Your task to perform on an android device: Show me popular games on the Play Store Image 0: 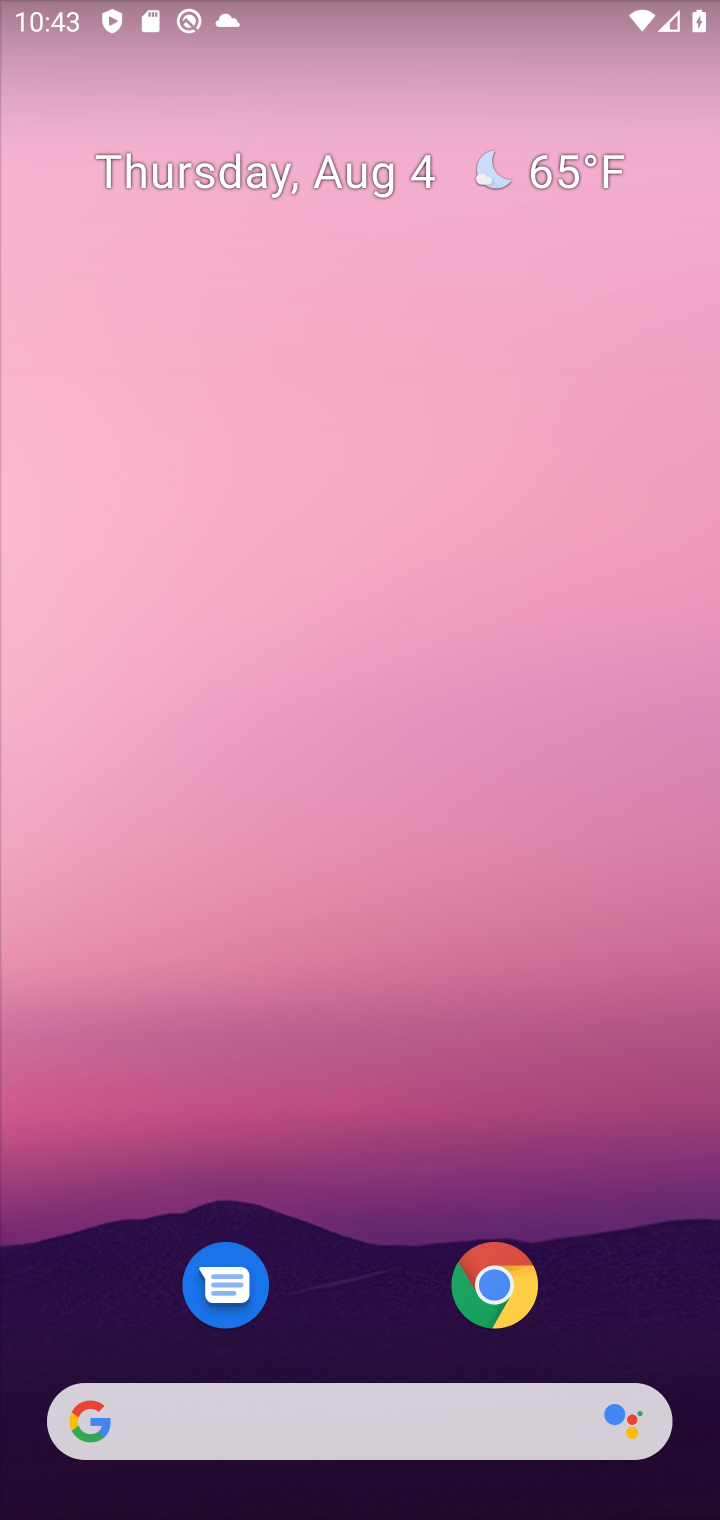
Step 0: drag from (419, 1309) to (609, 35)
Your task to perform on an android device: Show me popular games on the Play Store Image 1: 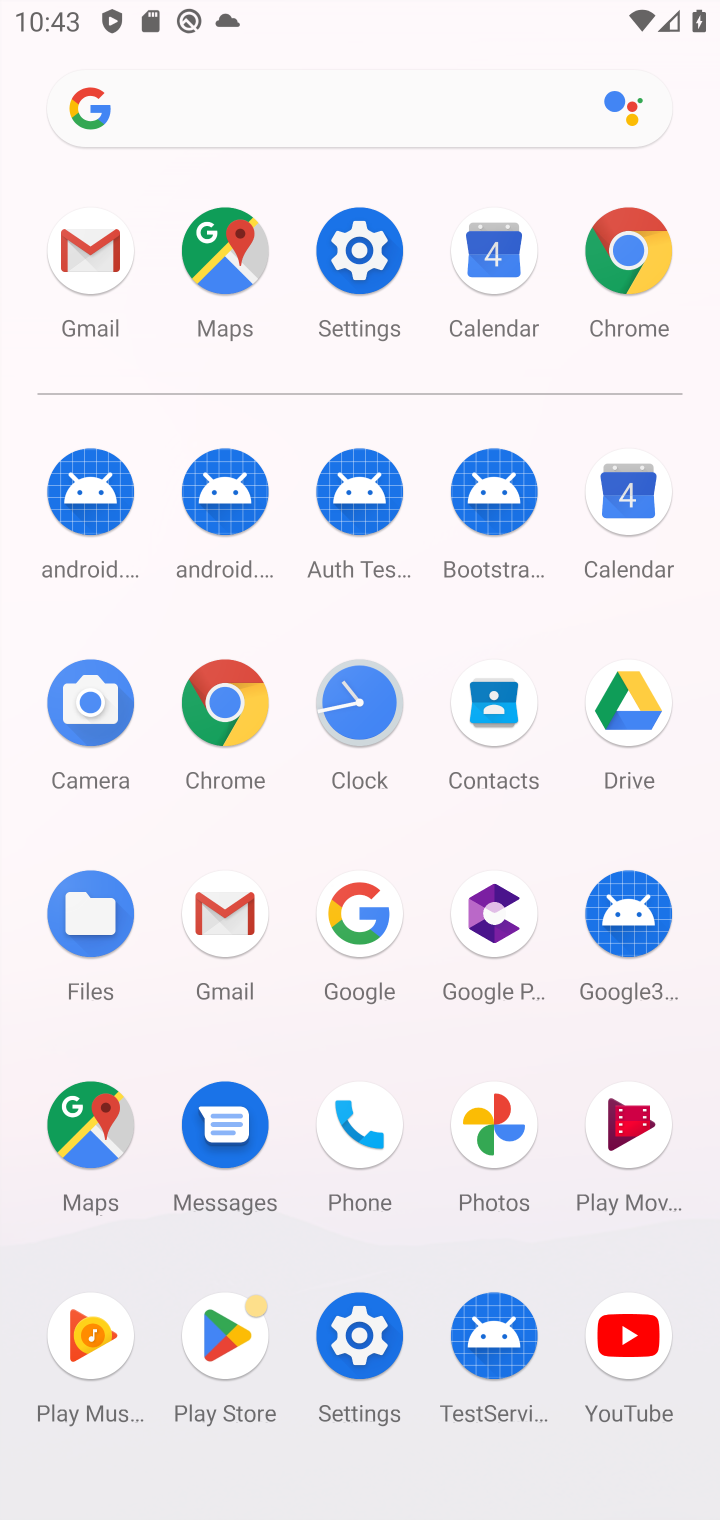
Step 1: click (233, 1315)
Your task to perform on an android device: Show me popular games on the Play Store Image 2: 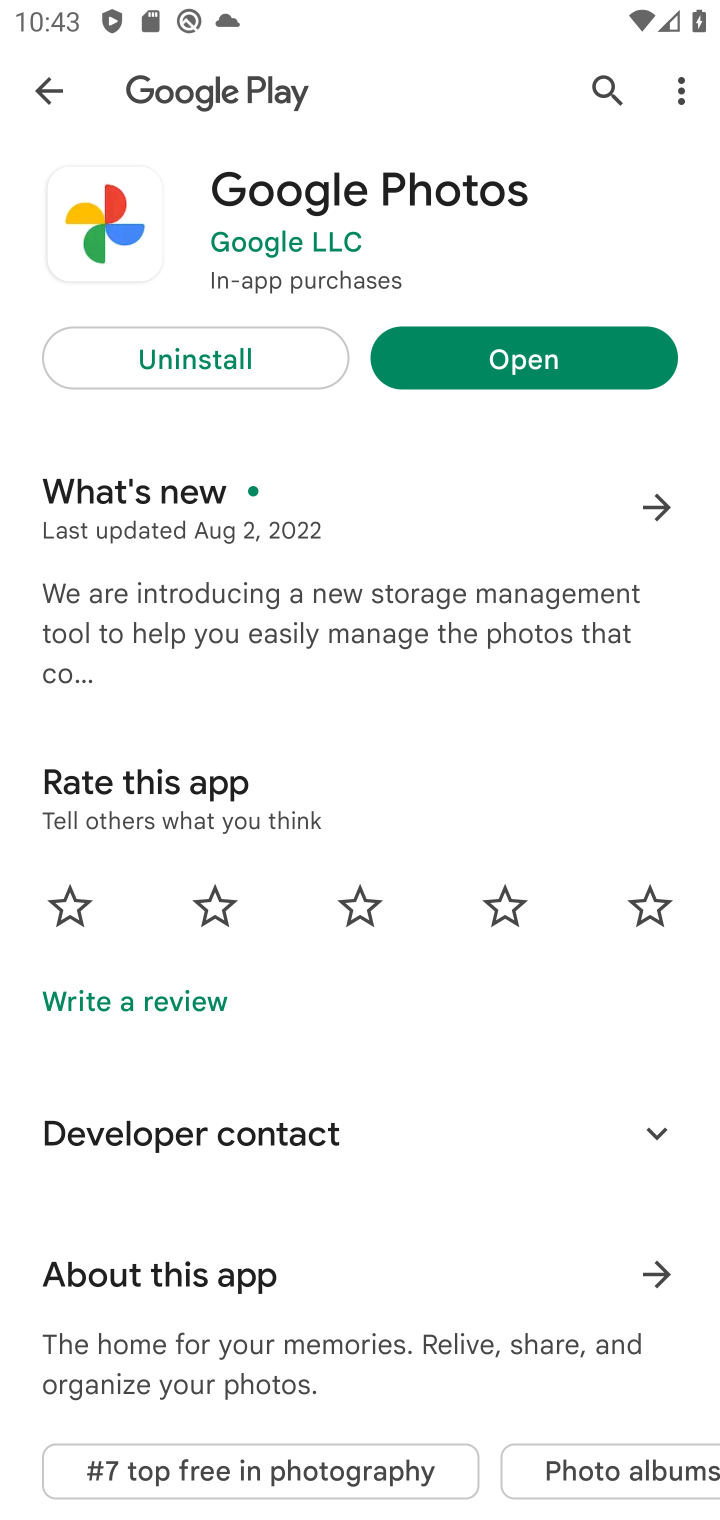
Step 2: click (51, 86)
Your task to perform on an android device: Show me popular games on the Play Store Image 3: 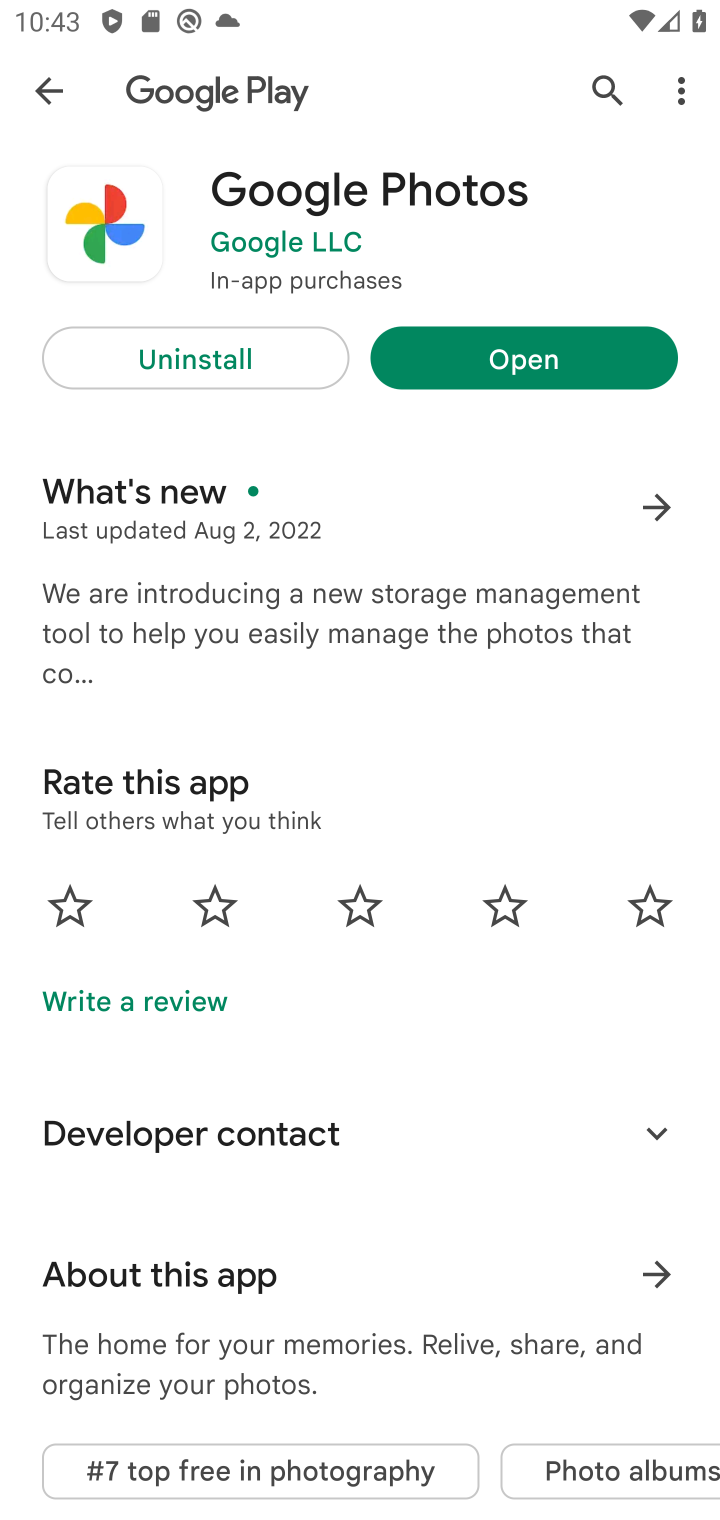
Step 3: click (51, 86)
Your task to perform on an android device: Show me popular games on the Play Store Image 4: 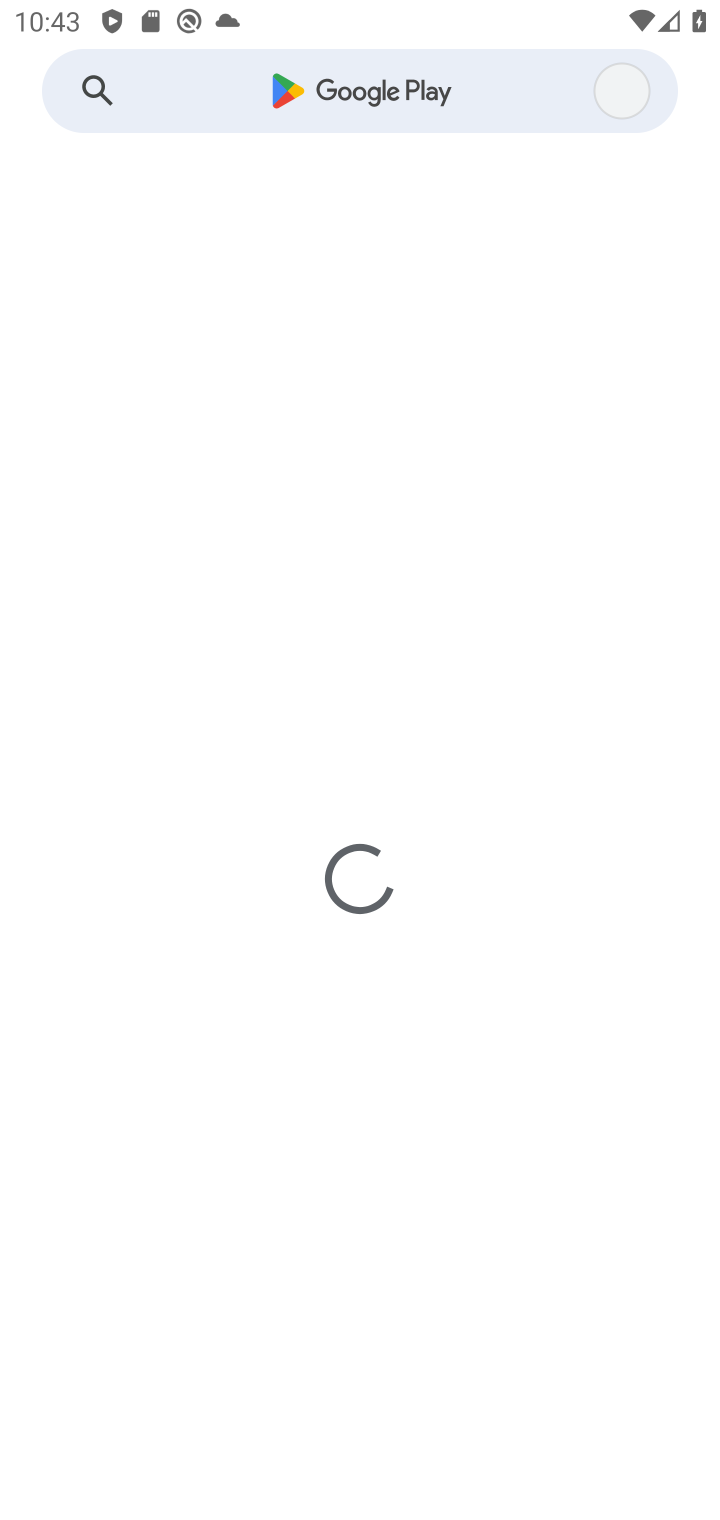
Step 4: click (291, 79)
Your task to perform on an android device: Show me popular games on the Play Store Image 5: 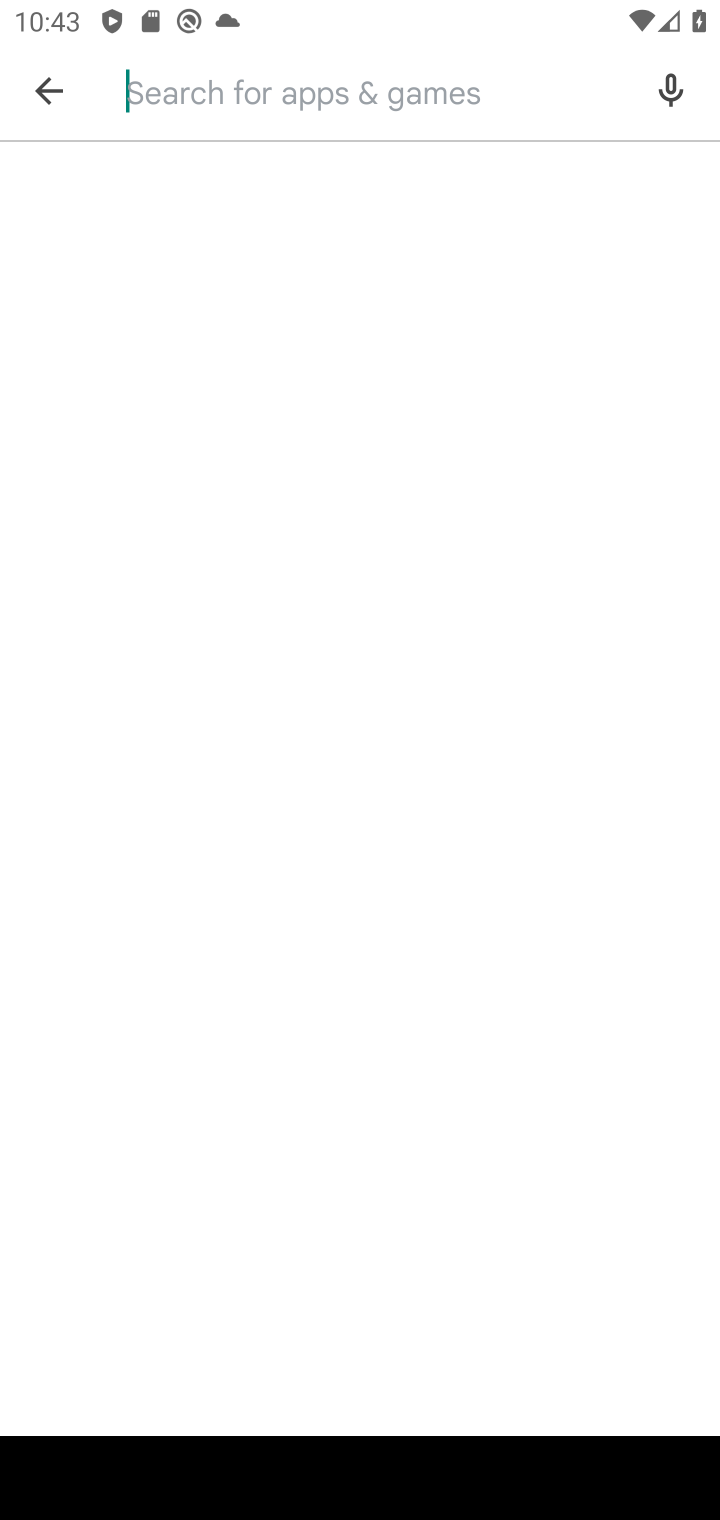
Step 5: type "popular games "
Your task to perform on an android device: Show me popular games on the Play Store Image 6: 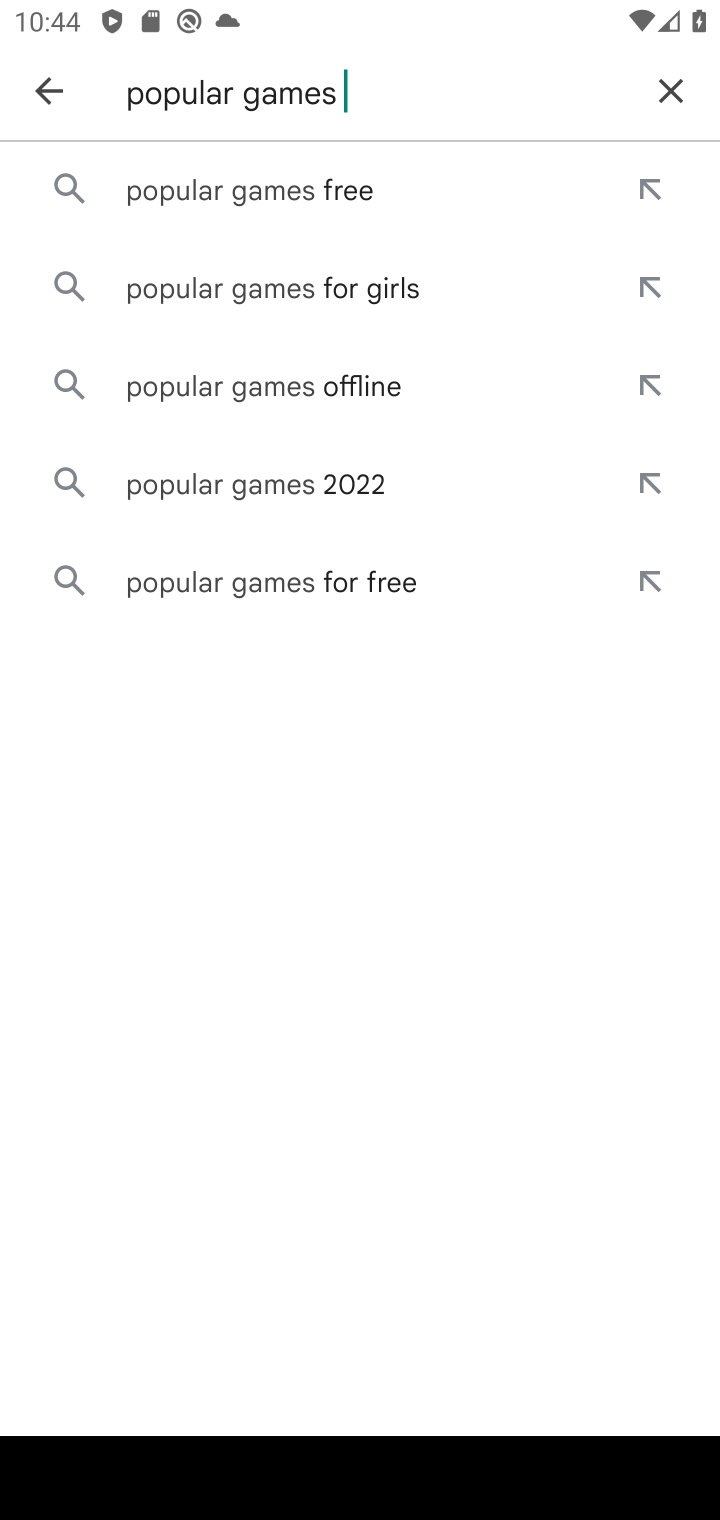
Step 6: click (213, 195)
Your task to perform on an android device: Show me popular games on the Play Store Image 7: 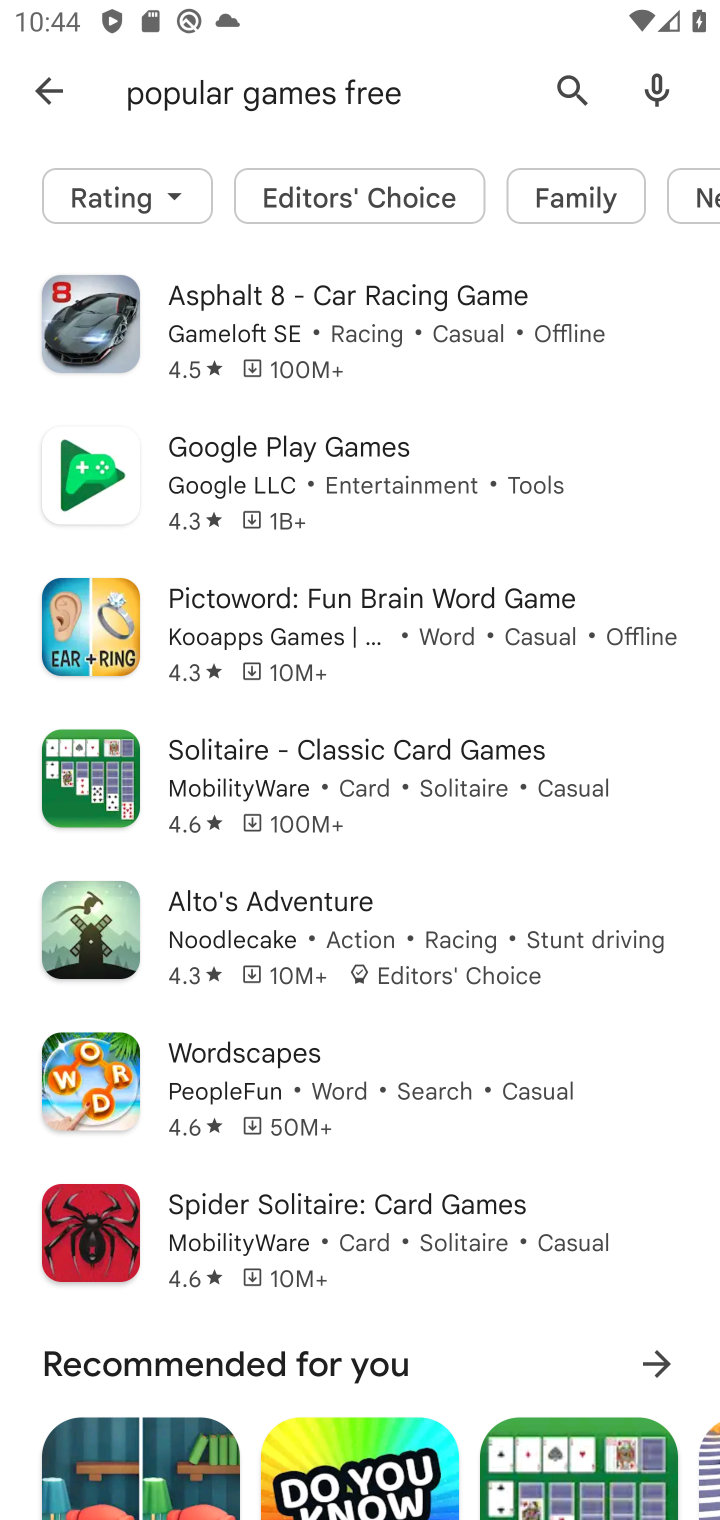
Step 7: task complete